Your task to perform on an android device: Open CNN.com Image 0: 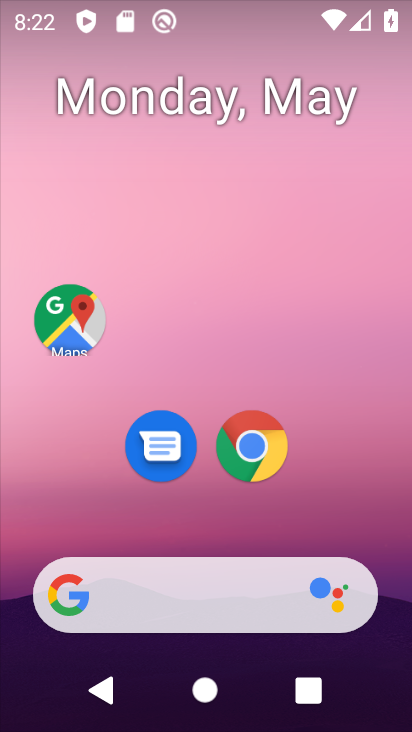
Step 0: press home button
Your task to perform on an android device: Open CNN.com Image 1: 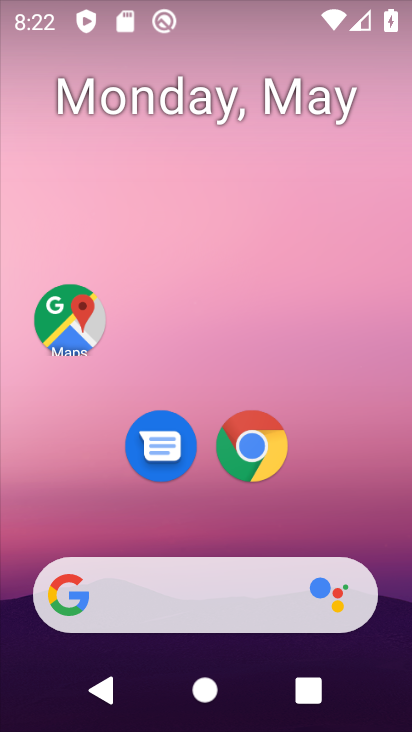
Step 1: click (252, 442)
Your task to perform on an android device: Open CNN.com Image 2: 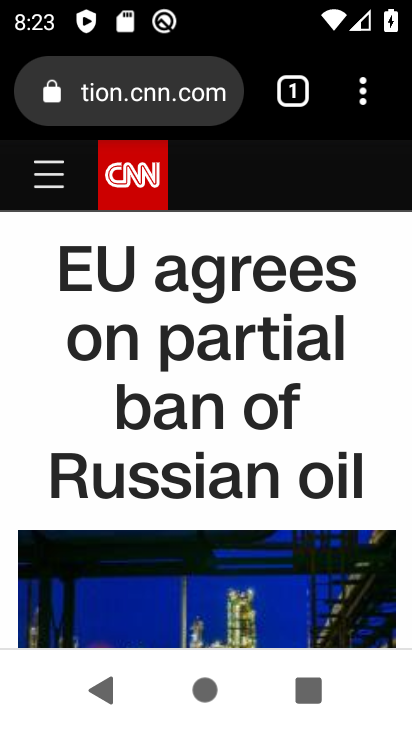
Step 2: task complete